Your task to perform on an android device: turn pop-ups on in chrome Image 0: 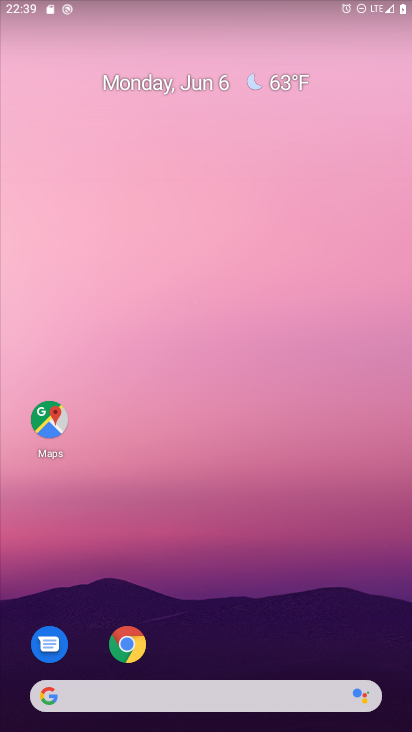
Step 0: drag from (265, 730) to (290, 321)
Your task to perform on an android device: turn pop-ups on in chrome Image 1: 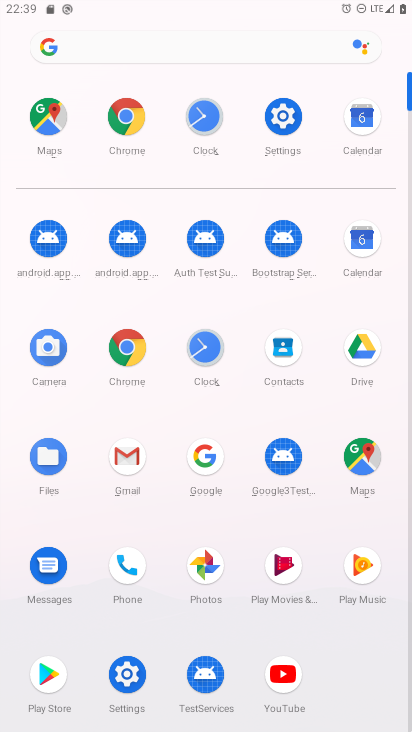
Step 1: click (112, 122)
Your task to perform on an android device: turn pop-ups on in chrome Image 2: 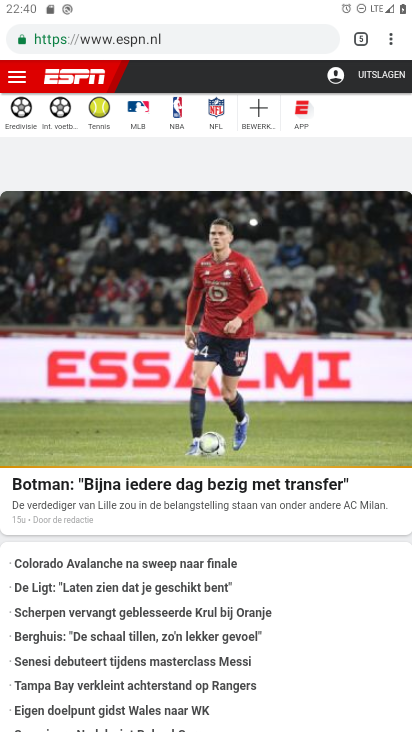
Step 2: click (386, 43)
Your task to perform on an android device: turn pop-ups on in chrome Image 3: 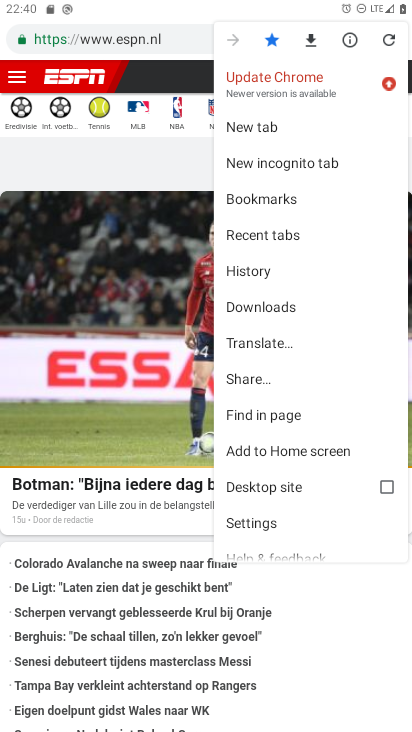
Step 3: click (261, 521)
Your task to perform on an android device: turn pop-ups on in chrome Image 4: 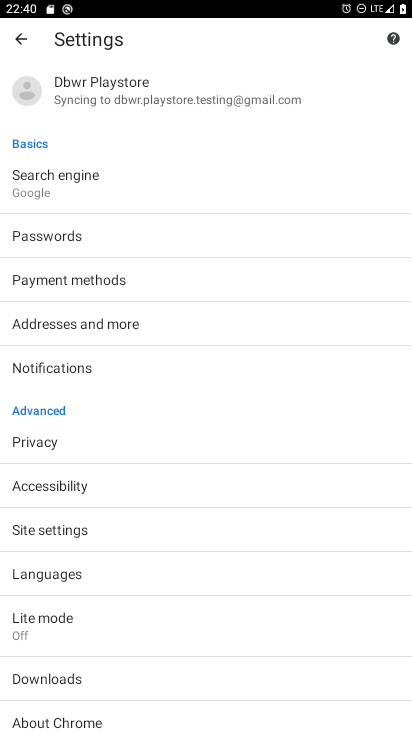
Step 4: click (54, 525)
Your task to perform on an android device: turn pop-ups on in chrome Image 5: 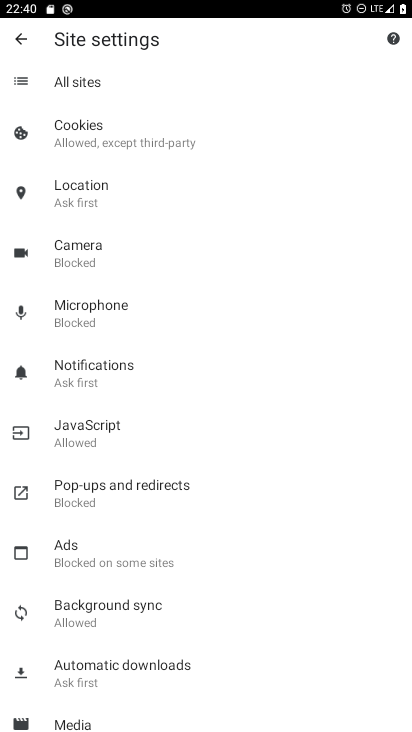
Step 5: click (124, 489)
Your task to perform on an android device: turn pop-ups on in chrome Image 6: 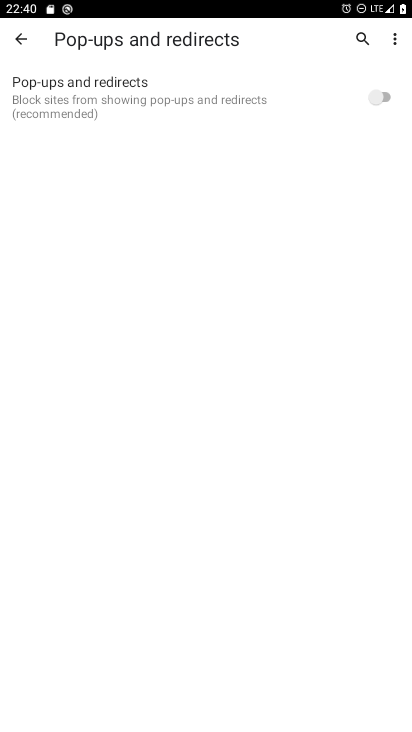
Step 6: task complete